Your task to perform on an android device: Go to Maps Image 0: 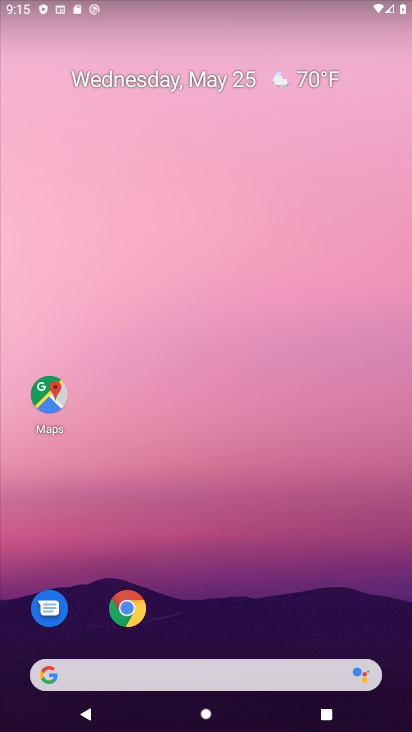
Step 0: click (61, 397)
Your task to perform on an android device: Go to Maps Image 1: 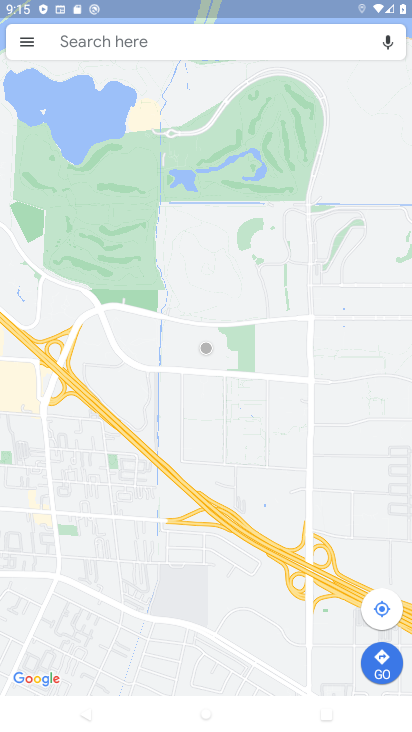
Step 1: task complete